Your task to perform on an android device: find snoozed emails in the gmail app Image 0: 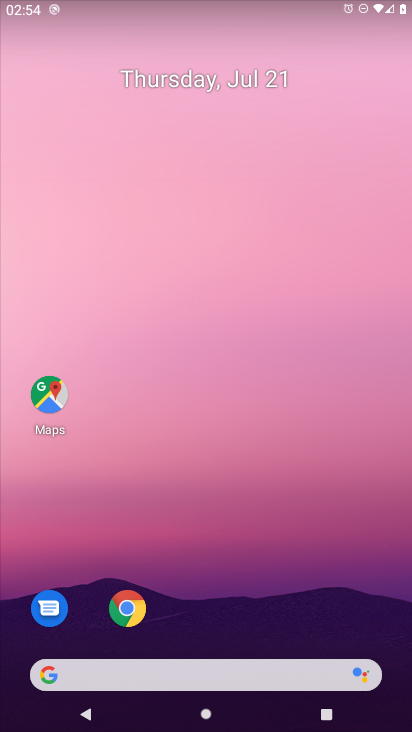
Step 0: press home button
Your task to perform on an android device: find snoozed emails in the gmail app Image 1: 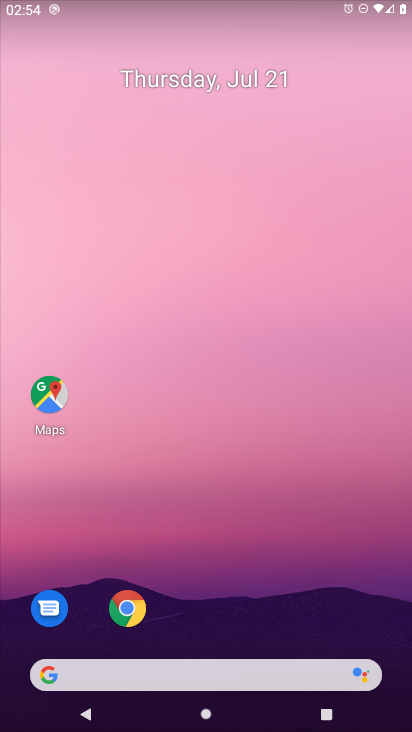
Step 1: drag from (218, 619) to (225, 49)
Your task to perform on an android device: find snoozed emails in the gmail app Image 2: 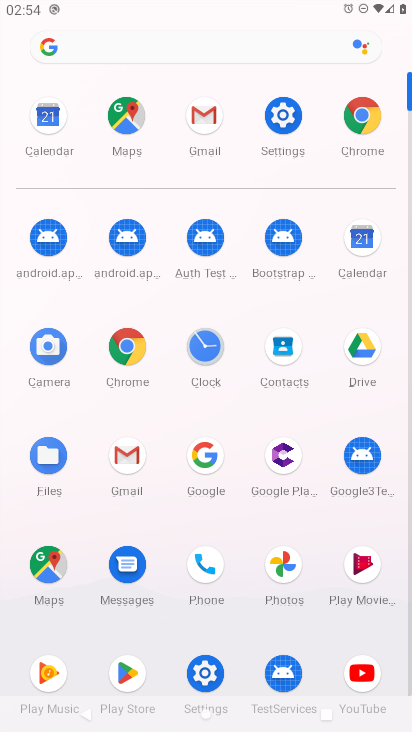
Step 2: click (198, 116)
Your task to perform on an android device: find snoozed emails in the gmail app Image 3: 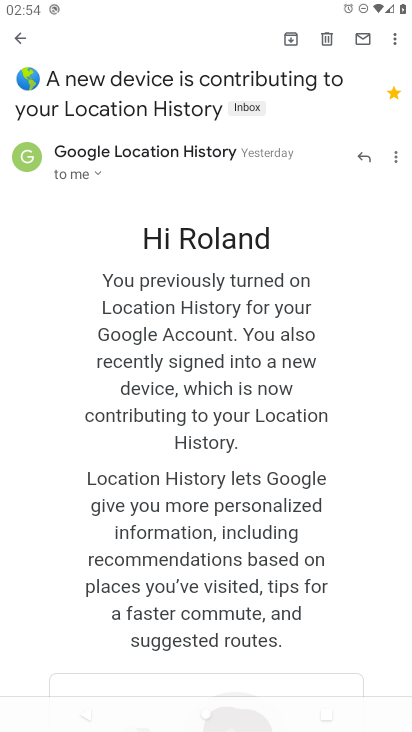
Step 3: click (20, 35)
Your task to perform on an android device: find snoozed emails in the gmail app Image 4: 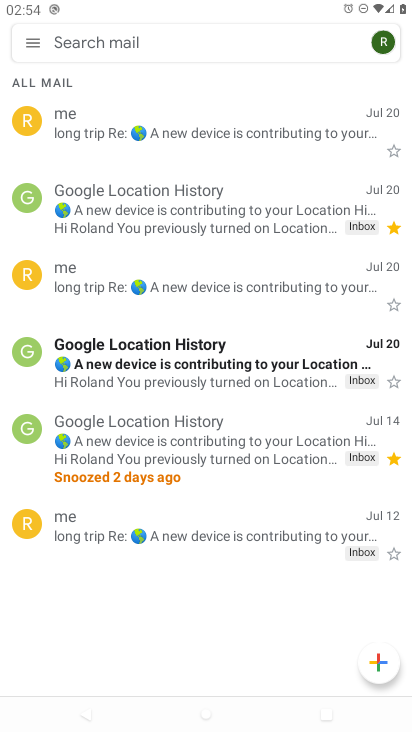
Step 4: click (16, 40)
Your task to perform on an android device: find snoozed emails in the gmail app Image 5: 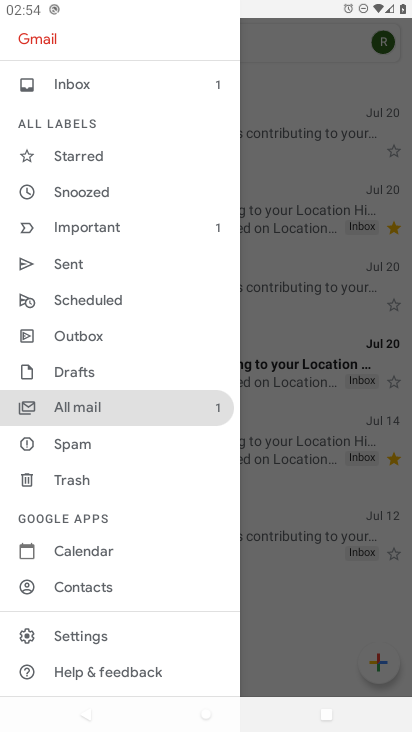
Step 5: click (67, 193)
Your task to perform on an android device: find snoozed emails in the gmail app Image 6: 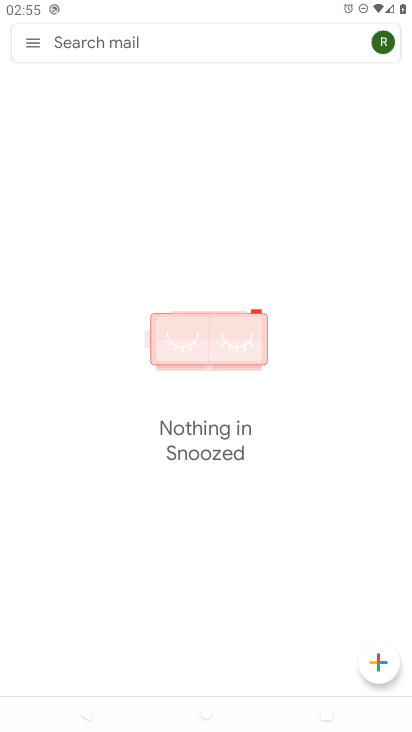
Step 6: task complete